Your task to perform on an android device: check google app version Image 0: 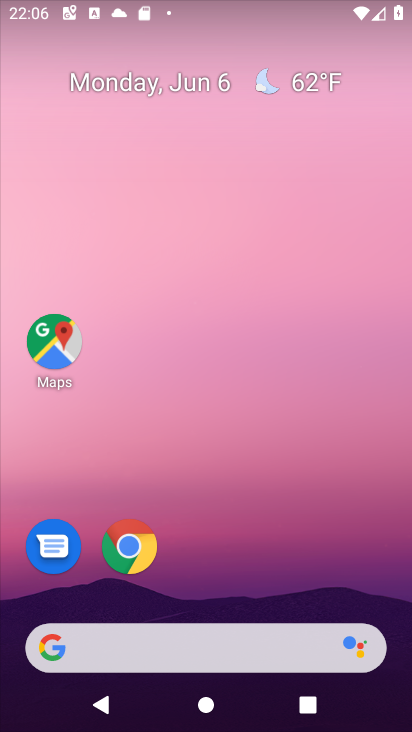
Step 0: click (132, 547)
Your task to perform on an android device: check google app version Image 1: 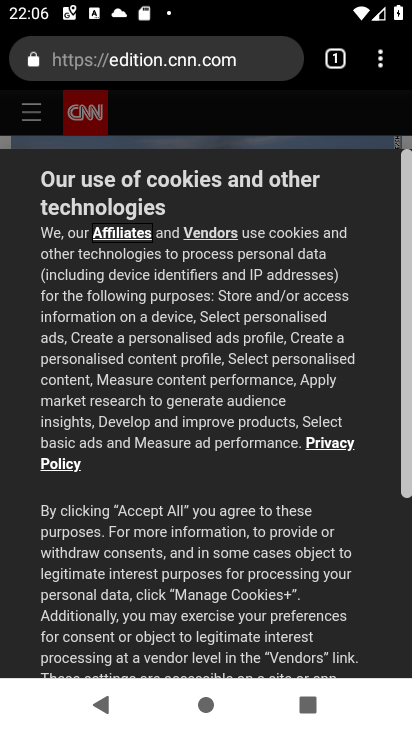
Step 1: click (380, 67)
Your task to perform on an android device: check google app version Image 2: 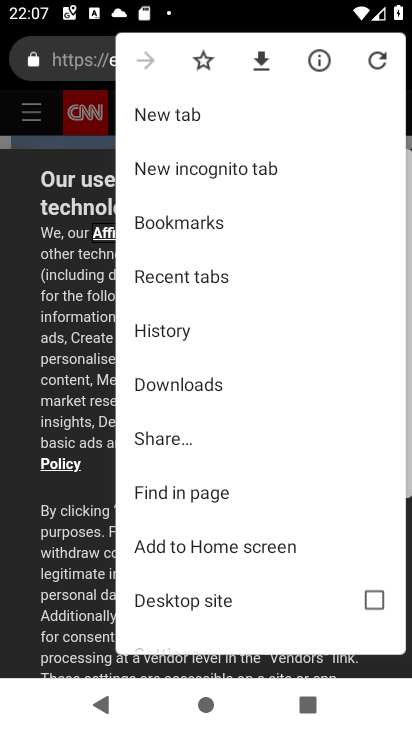
Step 2: drag from (286, 586) to (302, 227)
Your task to perform on an android device: check google app version Image 3: 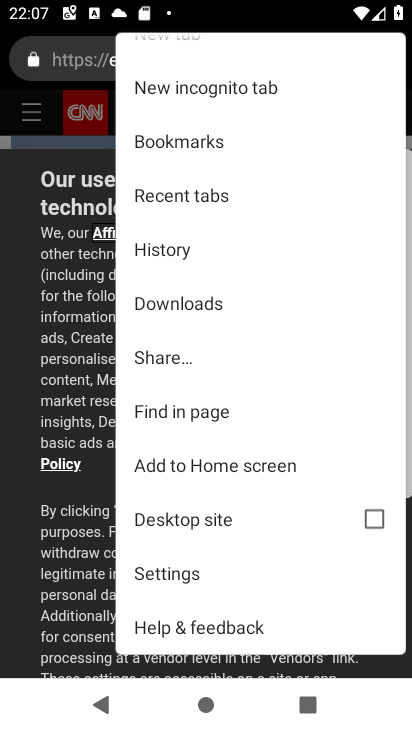
Step 3: click (157, 578)
Your task to perform on an android device: check google app version Image 4: 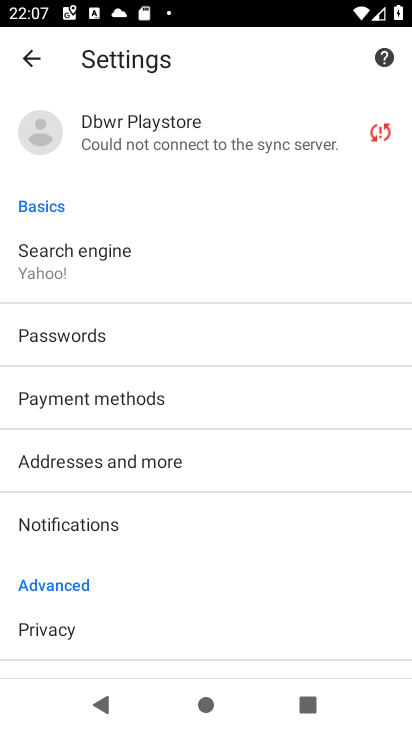
Step 4: drag from (217, 596) to (191, 231)
Your task to perform on an android device: check google app version Image 5: 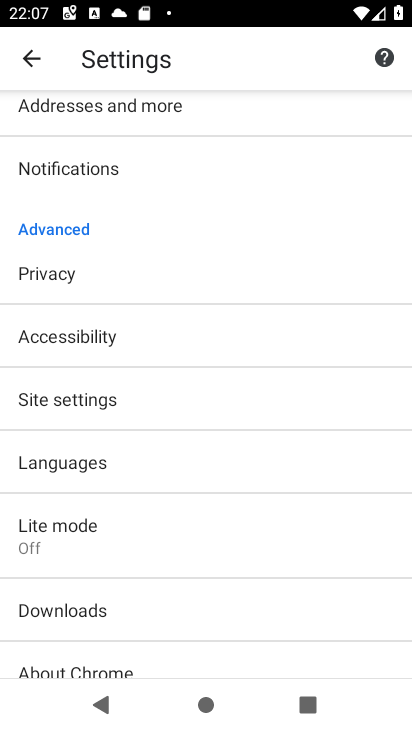
Step 5: drag from (197, 626) to (197, 310)
Your task to perform on an android device: check google app version Image 6: 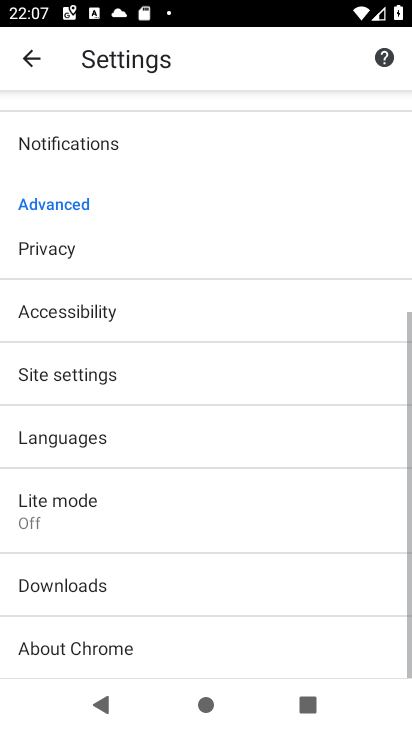
Step 6: click (85, 641)
Your task to perform on an android device: check google app version Image 7: 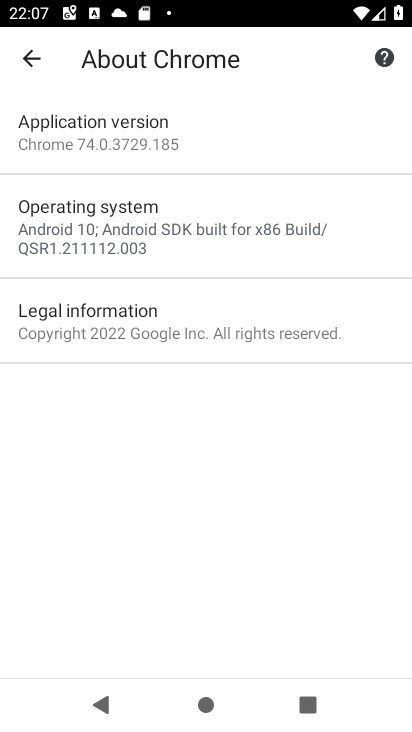
Step 7: click (91, 125)
Your task to perform on an android device: check google app version Image 8: 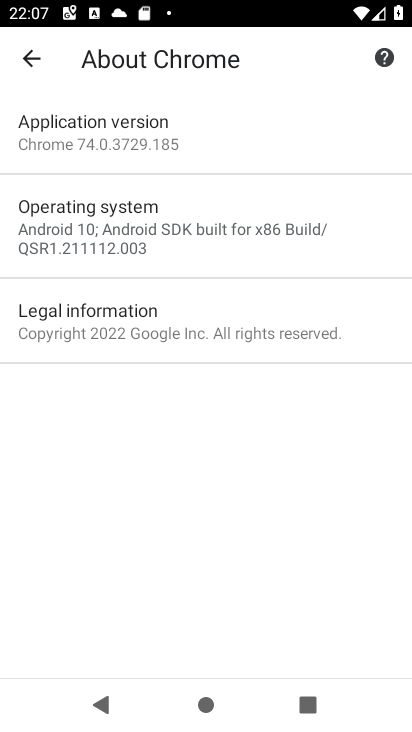
Step 8: task complete